Your task to perform on an android device: What's the weather? Image 0: 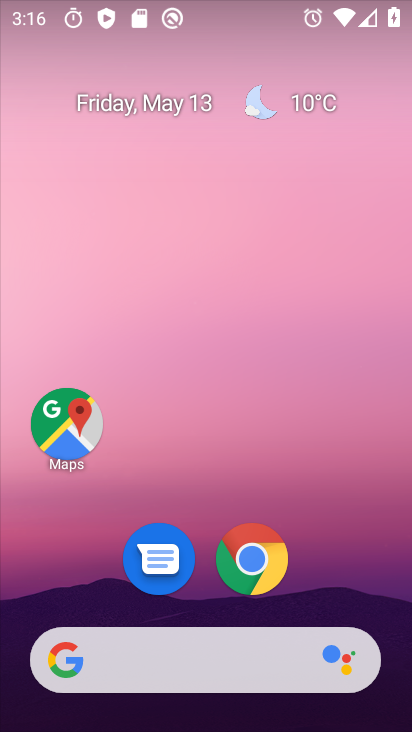
Step 0: drag from (206, 611) to (235, 242)
Your task to perform on an android device: What's the weather? Image 1: 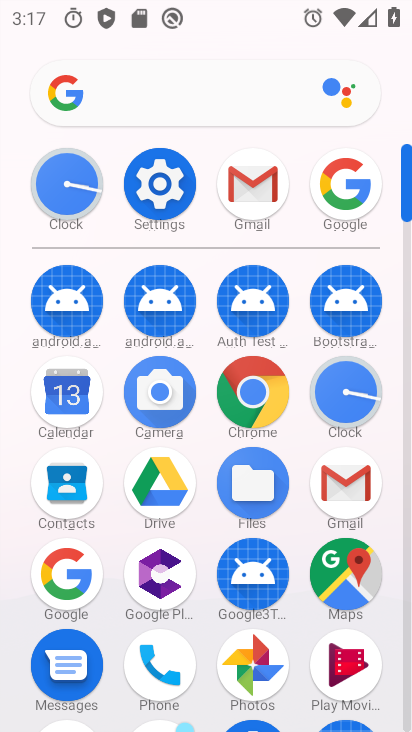
Step 1: click (52, 588)
Your task to perform on an android device: What's the weather? Image 2: 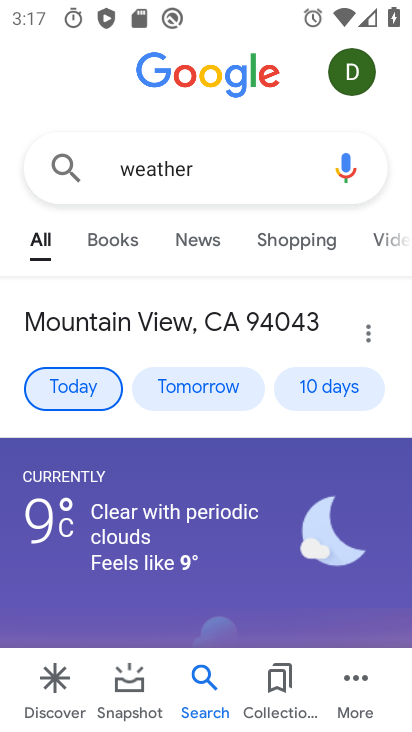
Step 2: task complete